Your task to perform on an android device: create a new album in the google photos Image 0: 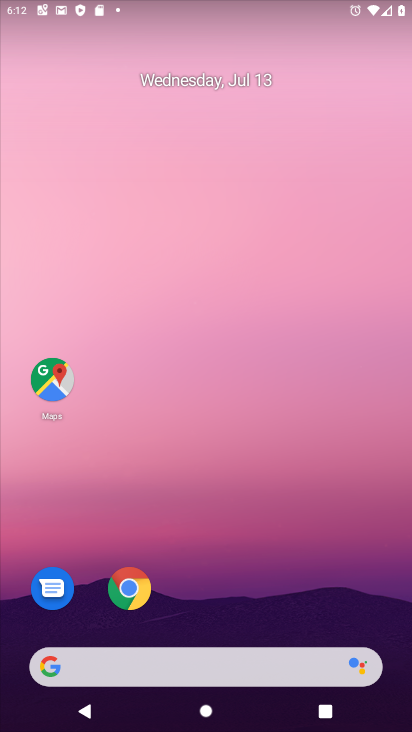
Step 0: drag from (190, 574) to (190, 185)
Your task to perform on an android device: create a new album in the google photos Image 1: 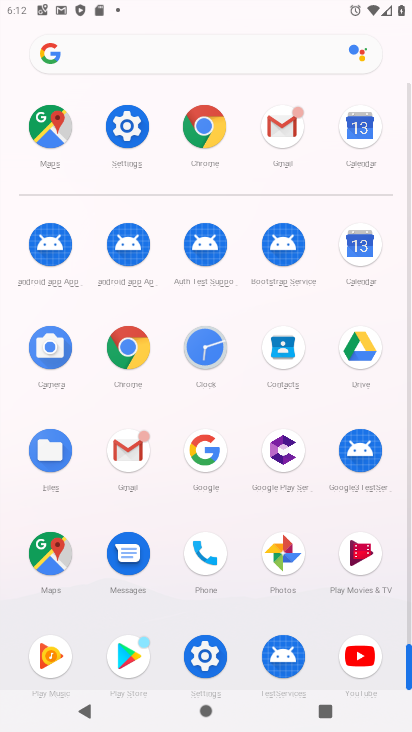
Step 1: click (286, 558)
Your task to perform on an android device: create a new album in the google photos Image 2: 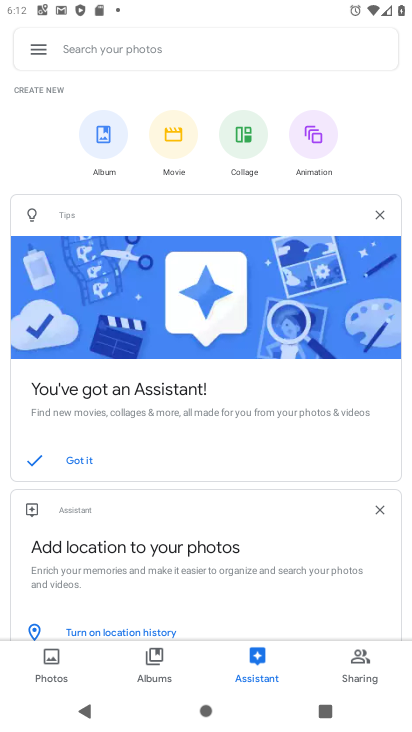
Step 2: click (92, 127)
Your task to perform on an android device: create a new album in the google photos Image 3: 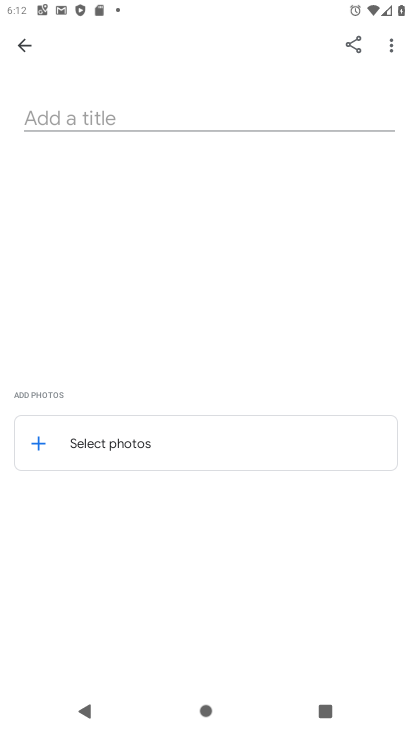
Step 3: click (244, 112)
Your task to perform on an android device: create a new album in the google photos Image 4: 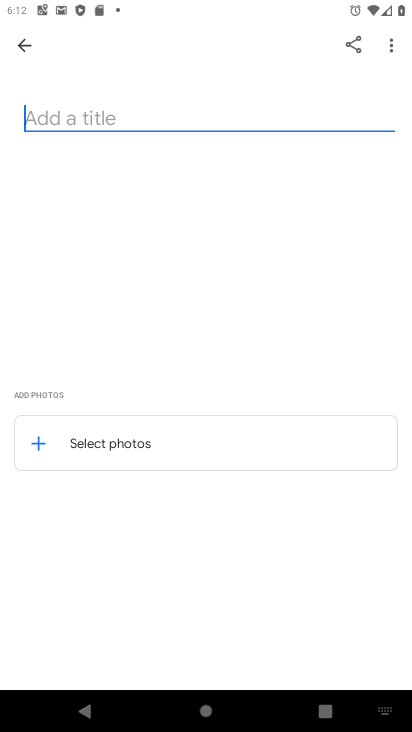
Step 4: type "Anuj"
Your task to perform on an android device: create a new album in the google photos Image 5: 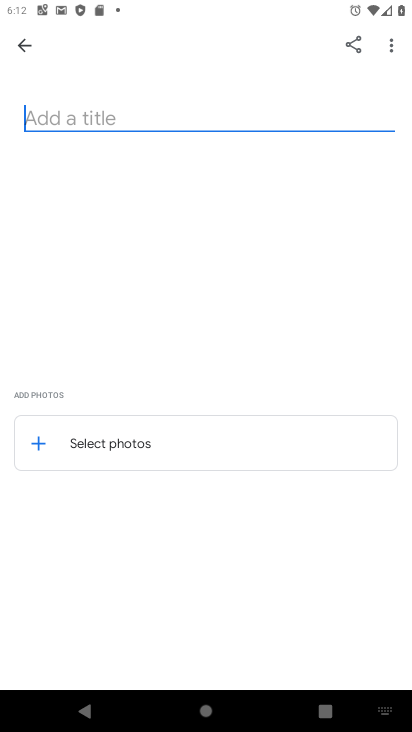
Step 5: click (105, 439)
Your task to perform on an android device: create a new album in the google photos Image 6: 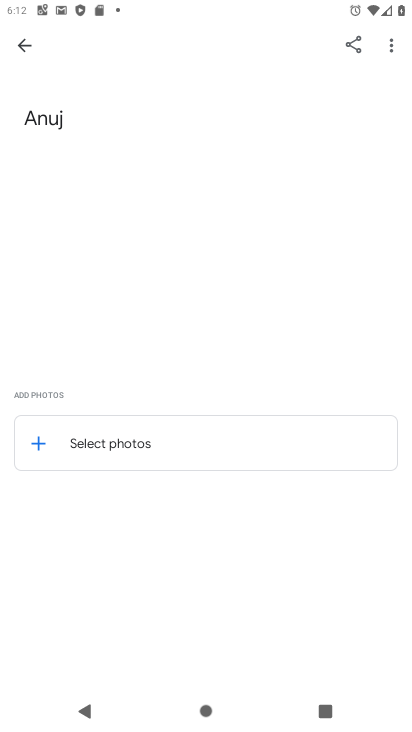
Step 6: click (105, 439)
Your task to perform on an android device: create a new album in the google photos Image 7: 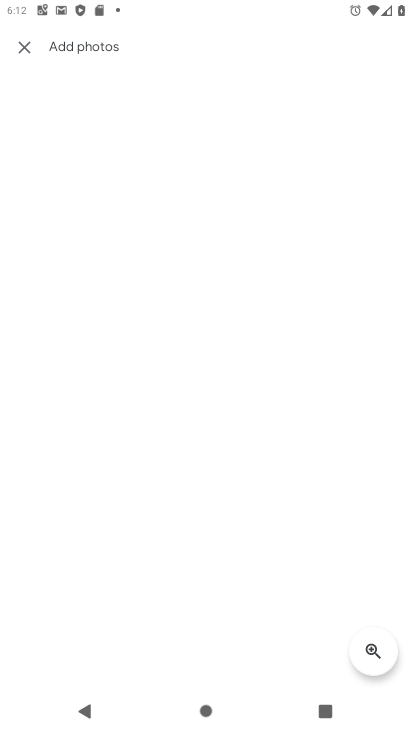
Step 7: task complete